Your task to perform on an android device: Go to Reddit.com Image 0: 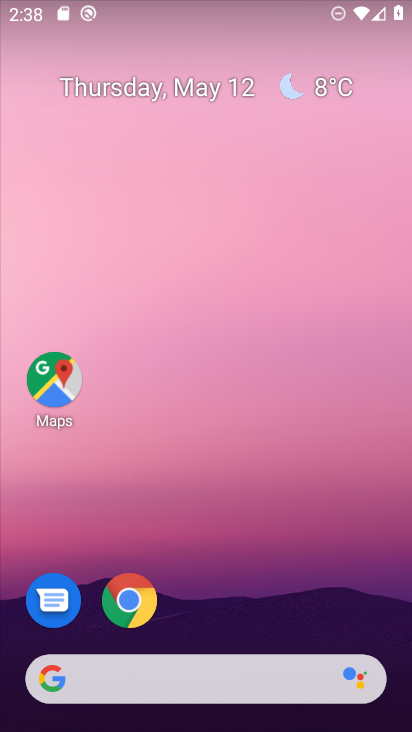
Step 0: click (125, 593)
Your task to perform on an android device: Go to Reddit.com Image 1: 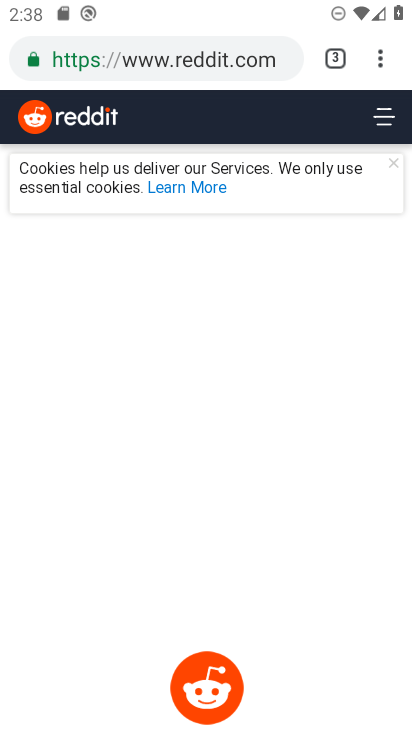
Step 1: task complete